Your task to perform on an android device: change the clock display to analog Image 0: 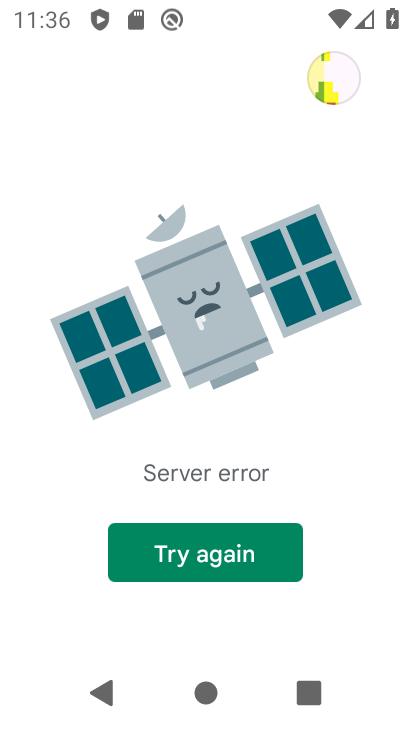
Step 0: press home button
Your task to perform on an android device: change the clock display to analog Image 1: 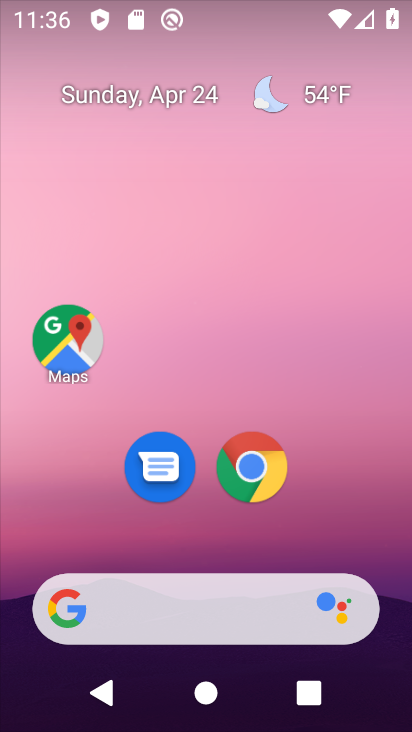
Step 1: drag from (198, 517) to (260, 4)
Your task to perform on an android device: change the clock display to analog Image 2: 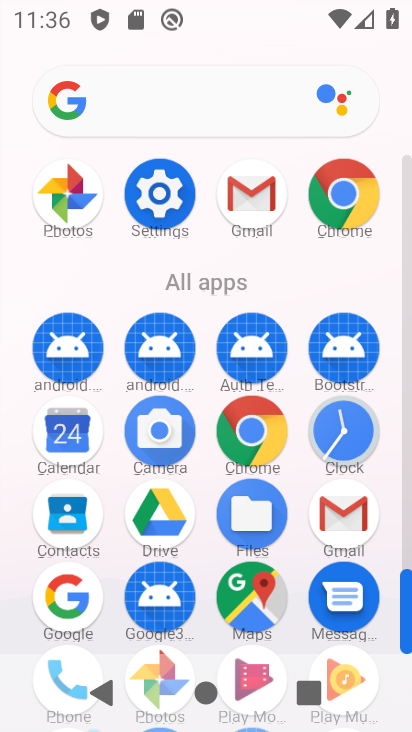
Step 2: click (334, 425)
Your task to perform on an android device: change the clock display to analog Image 3: 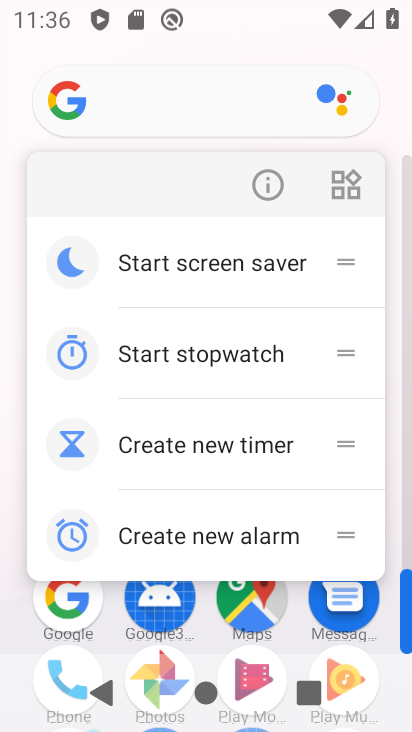
Step 3: click (278, 187)
Your task to perform on an android device: change the clock display to analog Image 4: 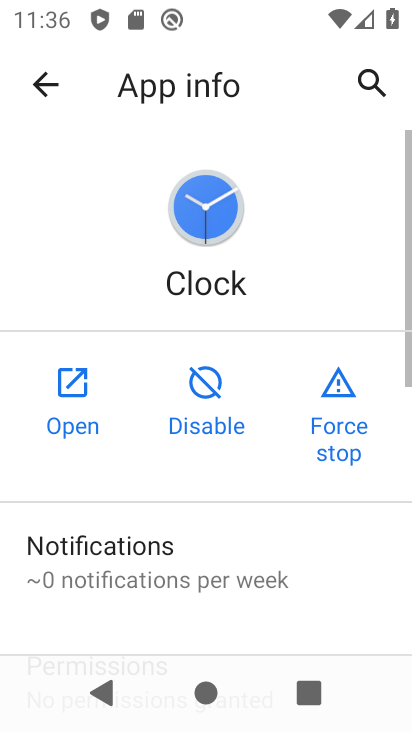
Step 4: click (69, 391)
Your task to perform on an android device: change the clock display to analog Image 5: 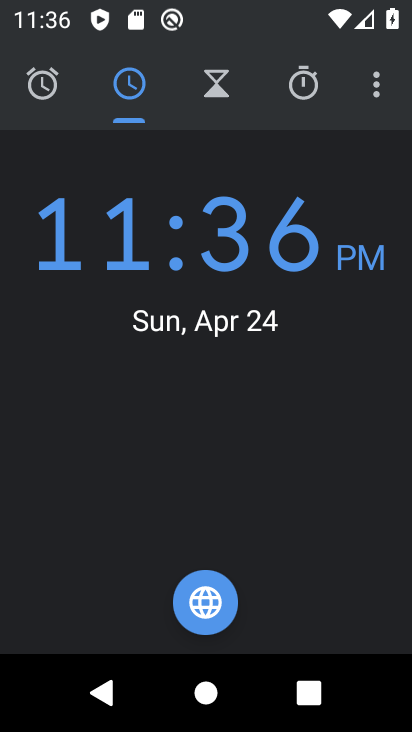
Step 5: click (375, 102)
Your task to perform on an android device: change the clock display to analog Image 6: 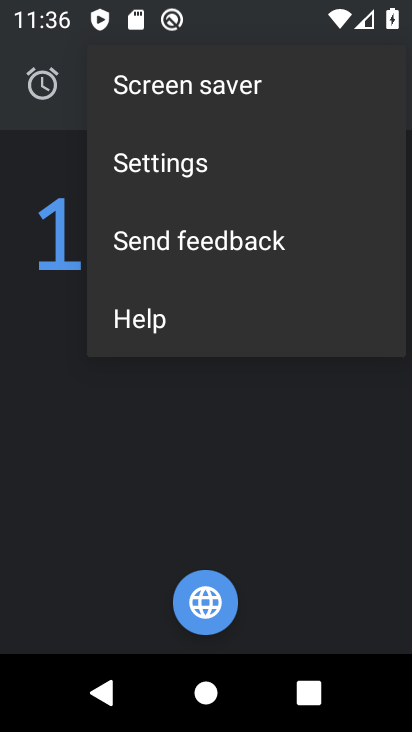
Step 6: click (181, 169)
Your task to perform on an android device: change the clock display to analog Image 7: 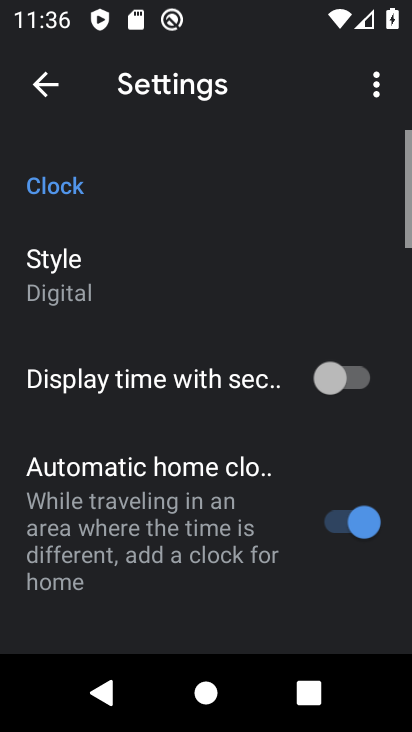
Step 7: click (76, 266)
Your task to perform on an android device: change the clock display to analog Image 8: 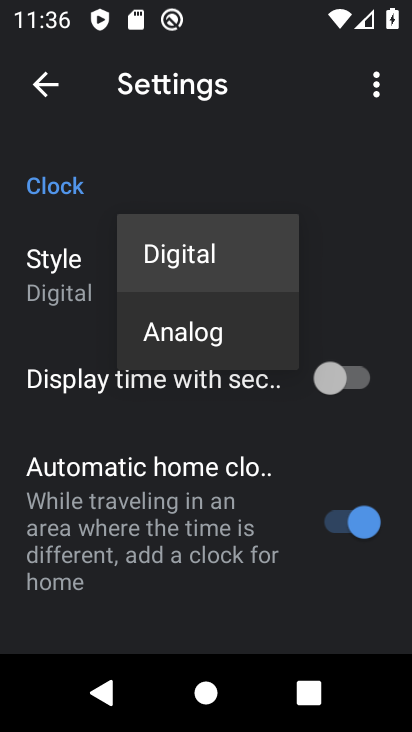
Step 8: click (191, 309)
Your task to perform on an android device: change the clock display to analog Image 9: 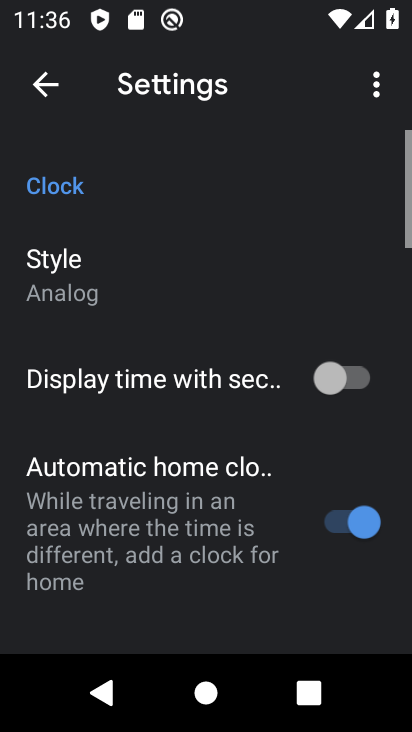
Step 9: task complete